Your task to perform on an android device: Go to notification settings Image 0: 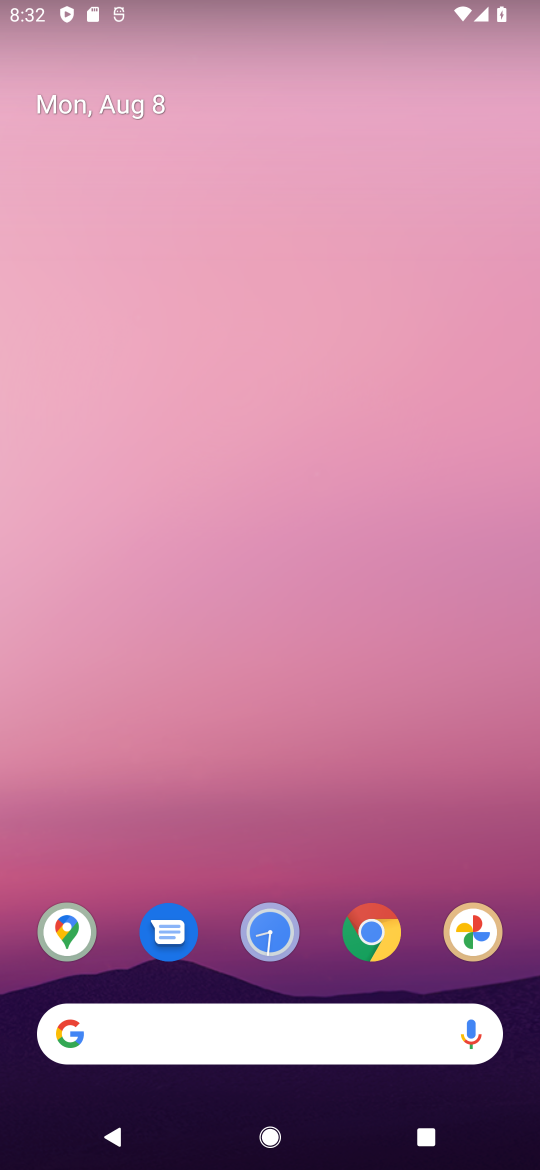
Step 0: drag from (259, 734) to (257, 27)
Your task to perform on an android device: Go to notification settings Image 1: 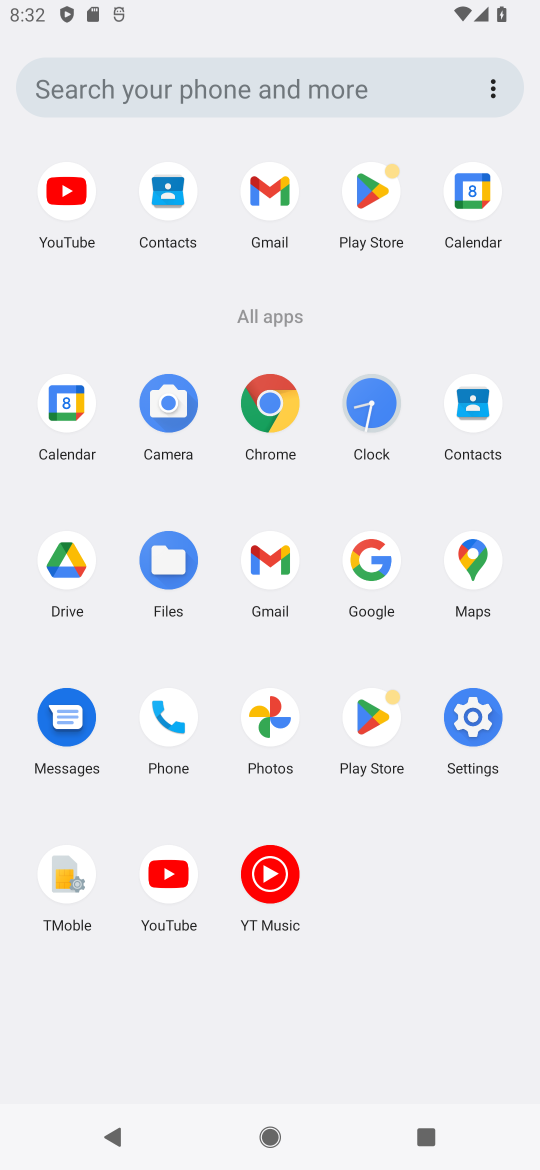
Step 1: click (478, 732)
Your task to perform on an android device: Go to notification settings Image 2: 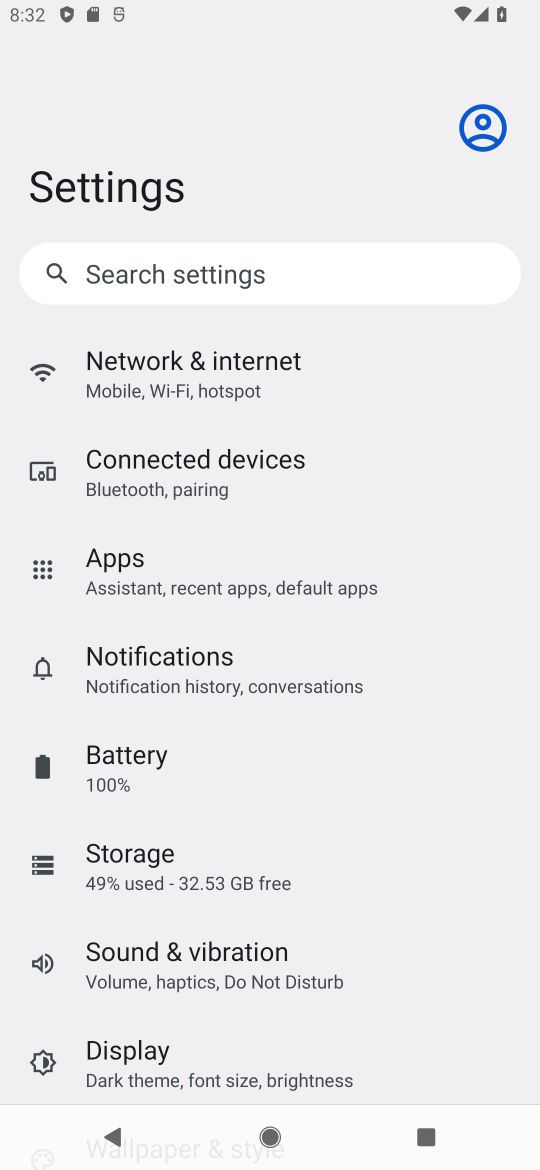
Step 2: click (203, 661)
Your task to perform on an android device: Go to notification settings Image 3: 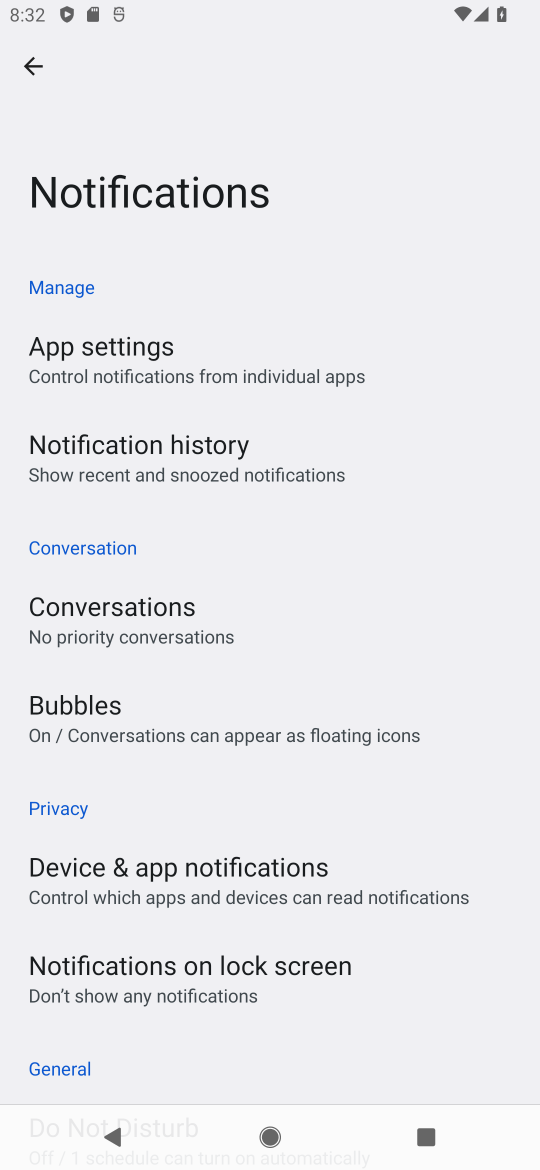
Step 3: task complete